Your task to perform on an android device: Open Google Maps Image 0: 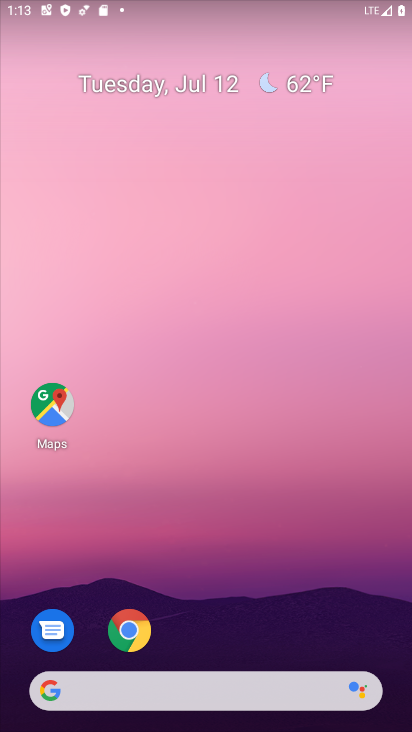
Step 0: drag from (211, 628) to (259, 88)
Your task to perform on an android device: Open Google Maps Image 1: 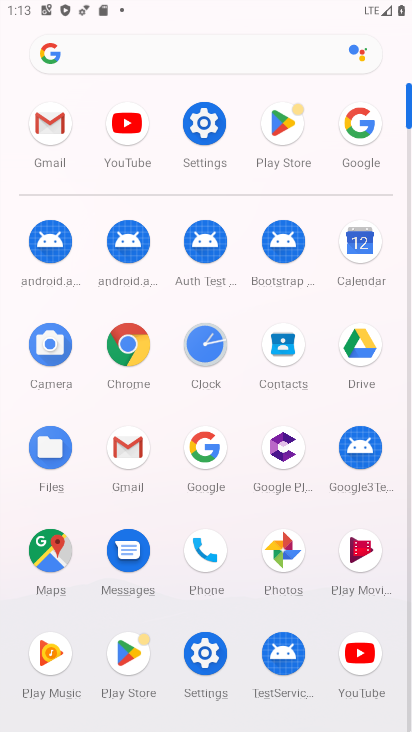
Step 1: click (53, 548)
Your task to perform on an android device: Open Google Maps Image 2: 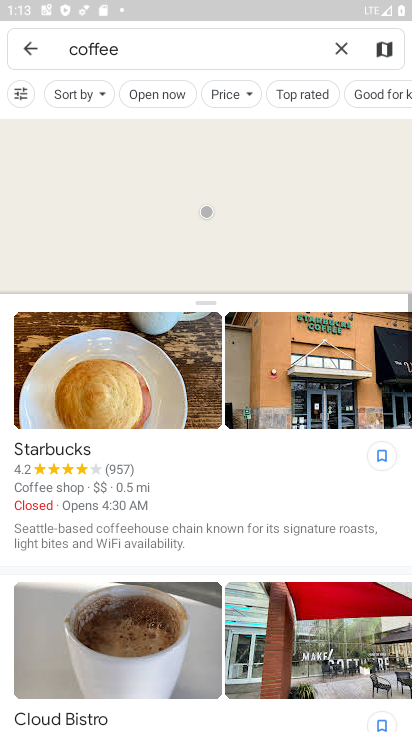
Step 2: click (341, 48)
Your task to perform on an android device: Open Google Maps Image 3: 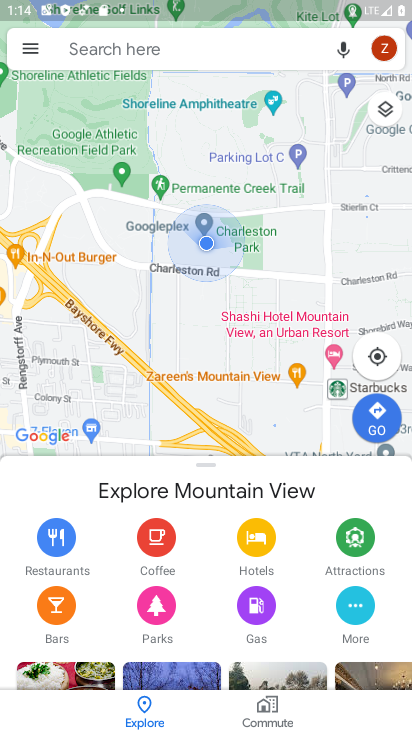
Step 3: task complete